Your task to perform on an android device: check android version Image 0: 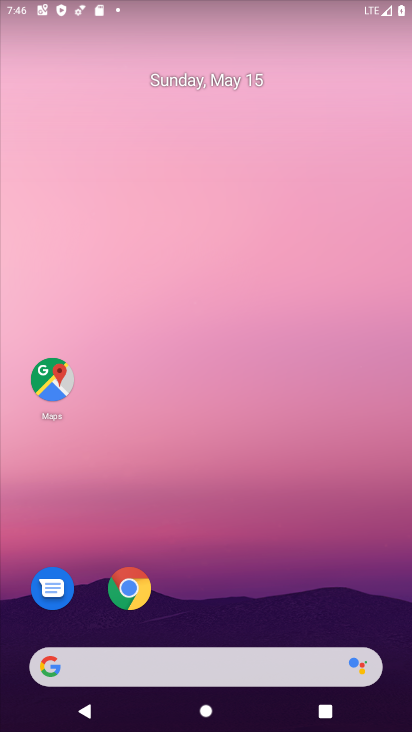
Step 0: drag from (322, 548) to (247, 25)
Your task to perform on an android device: check android version Image 1: 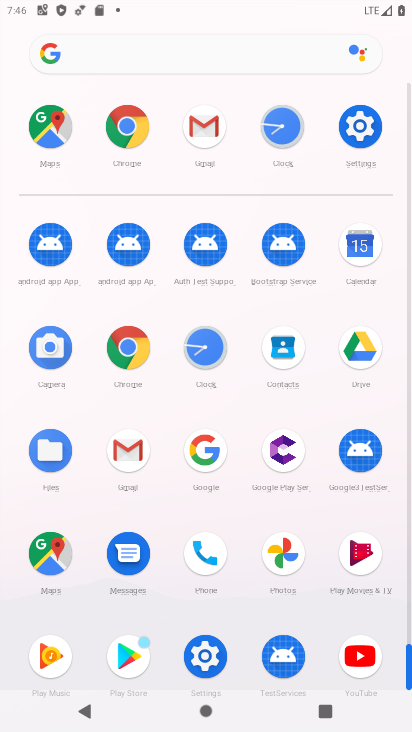
Step 1: click (203, 469)
Your task to perform on an android device: check android version Image 2: 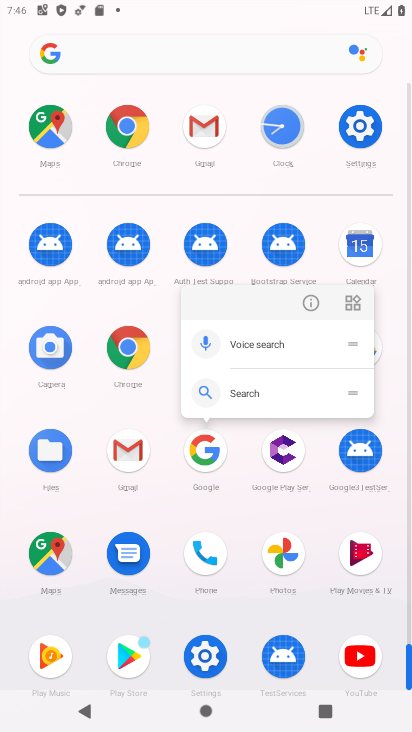
Step 2: click (240, 500)
Your task to perform on an android device: check android version Image 3: 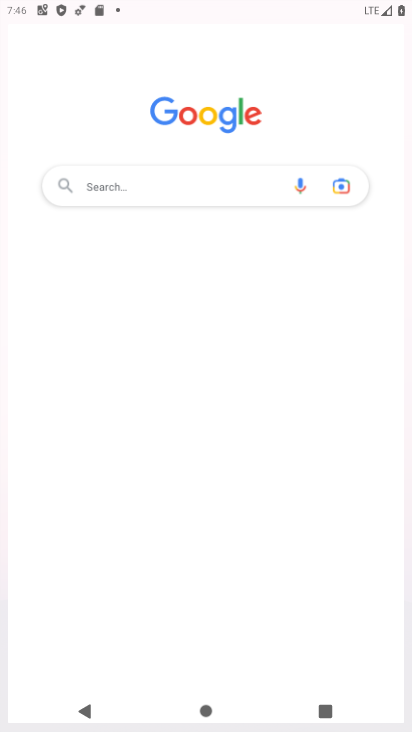
Step 3: drag from (247, 605) to (221, 104)
Your task to perform on an android device: check android version Image 4: 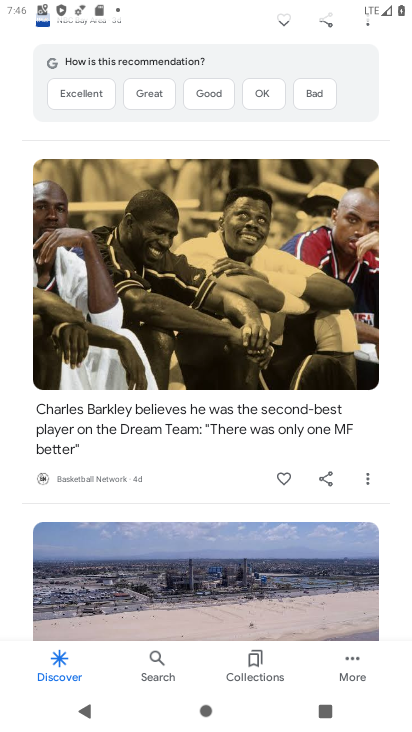
Step 4: drag from (166, 620) to (140, 177)
Your task to perform on an android device: check android version Image 5: 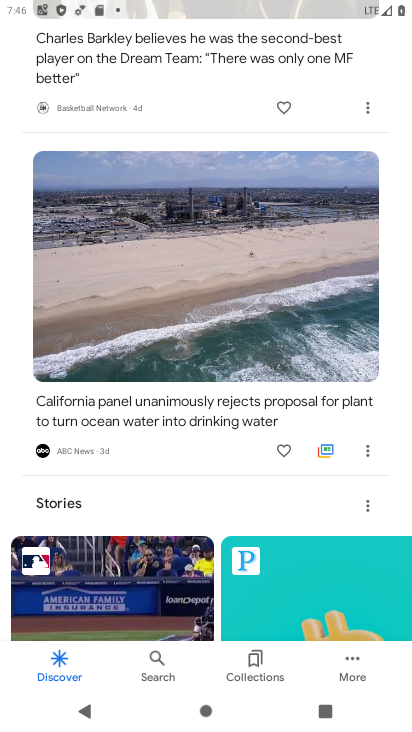
Step 5: press back button
Your task to perform on an android device: check android version Image 6: 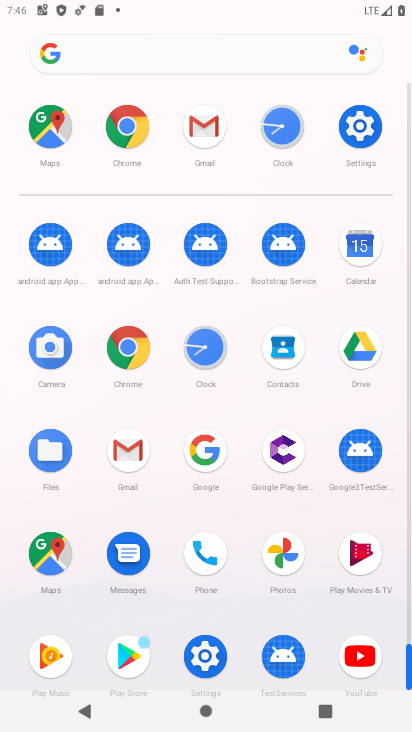
Step 6: click (214, 650)
Your task to perform on an android device: check android version Image 7: 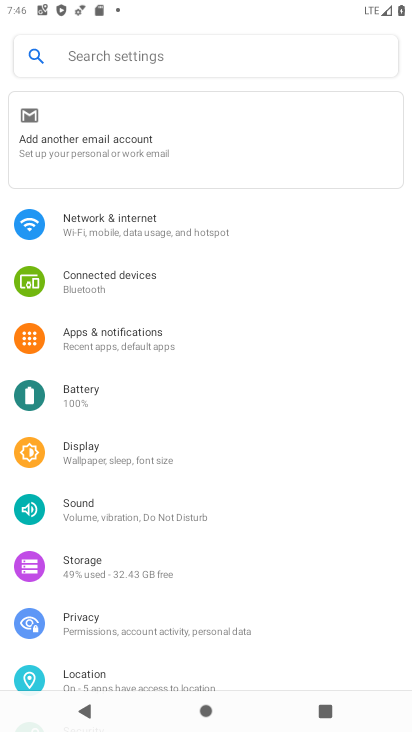
Step 7: drag from (135, 624) to (146, 71)
Your task to perform on an android device: check android version Image 8: 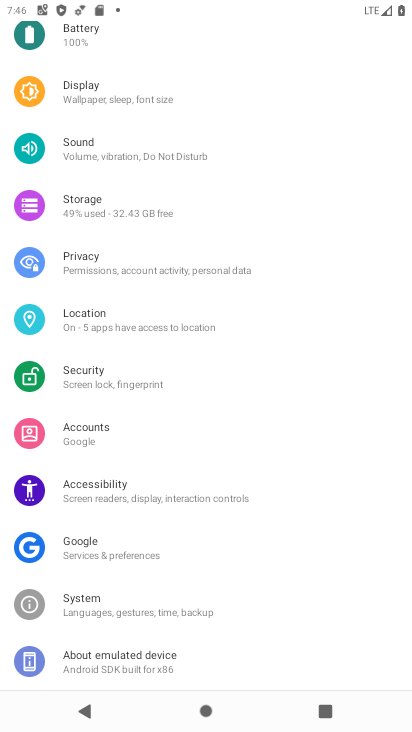
Step 8: click (73, 664)
Your task to perform on an android device: check android version Image 9: 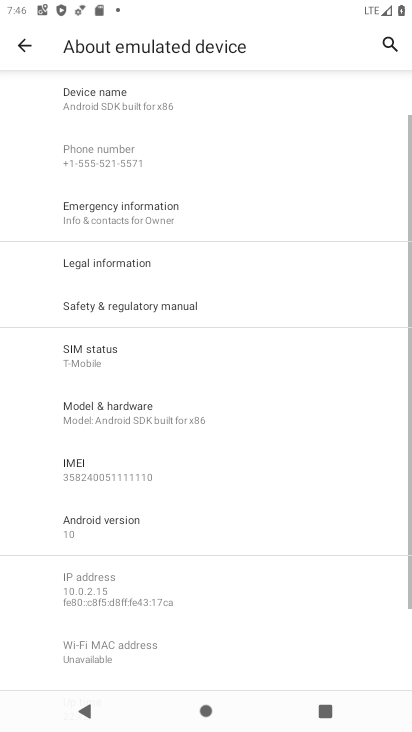
Step 9: click (139, 524)
Your task to perform on an android device: check android version Image 10: 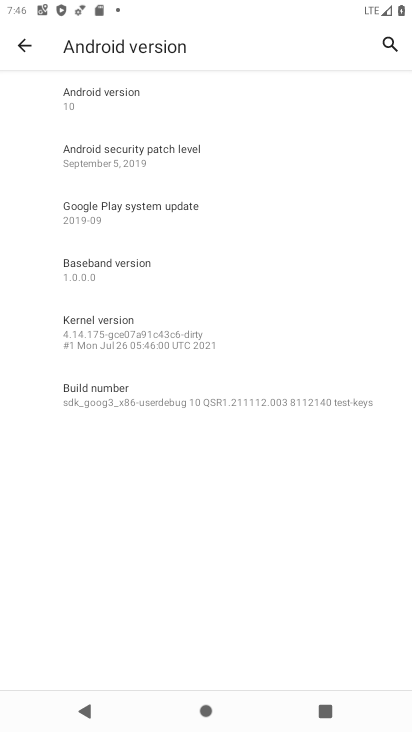
Step 10: task complete